Your task to perform on an android device: Open Yahoo.com Image 0: 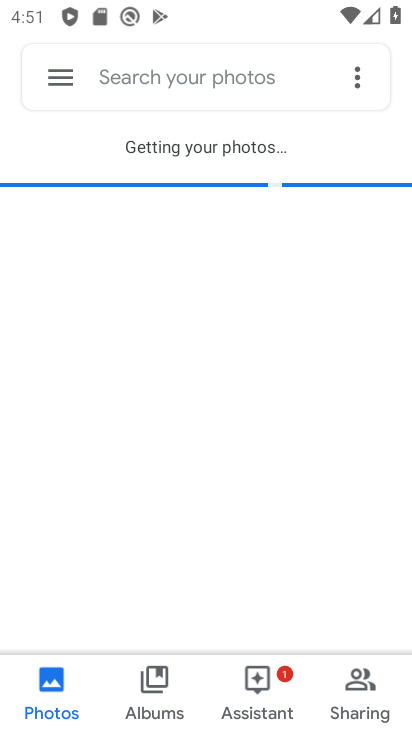
Step 0: press home button
Your task to perform on an android device: Open Yahoo.com Image 1: 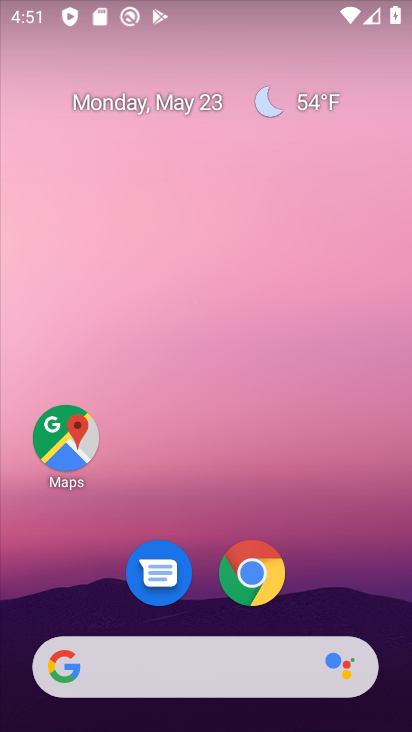
Step 1: drag from (209, 693) to (183, 209)
Your task to perform on an android device: Open Yahoo.com Image 2: 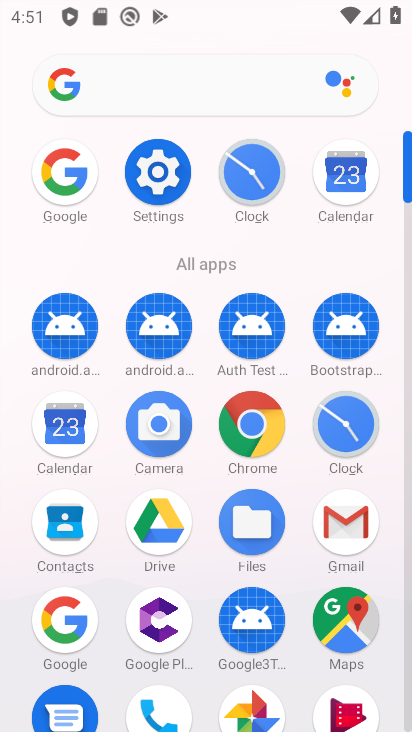
Step 2: click (255, 426)
Your task to perform on an android device: Open Yahoo.com Image 3: 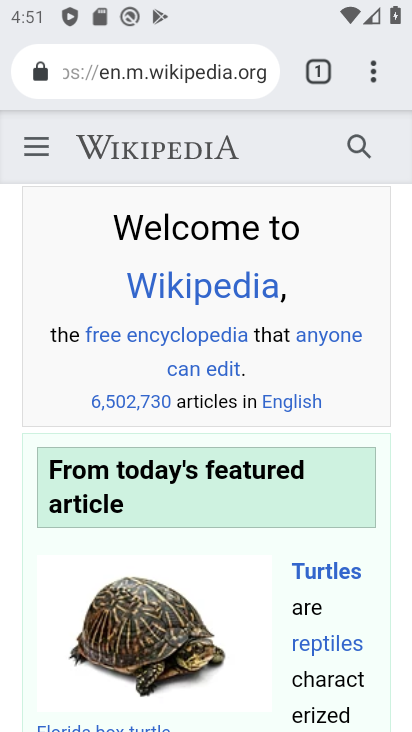
Step 3: click (372, 78)
Your task to perform on an android device: Open Yahoo.com Image 4: 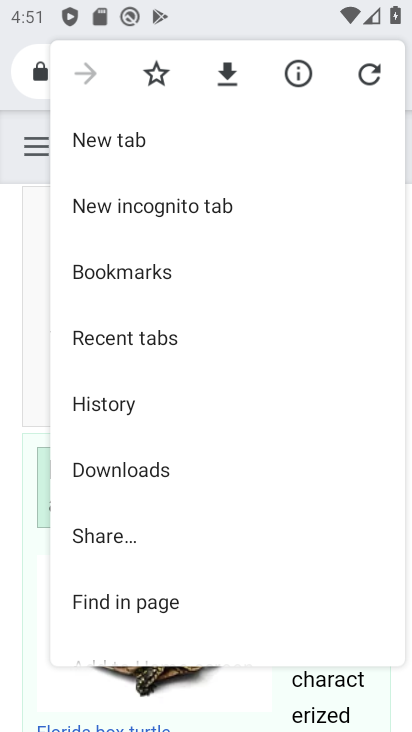
Step 4: click (112, 144)
Your task to perform on an android device: Open Yahoo.com Image 5: 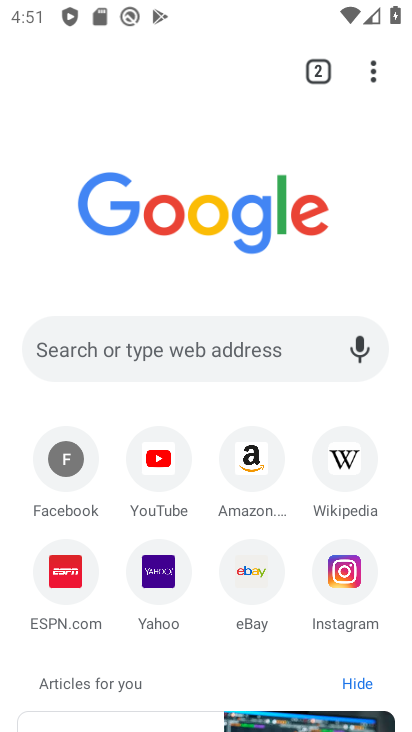
Step 5: click (172, 574)
Your task to perform on an android device: Open Yahoo.com Image 6: 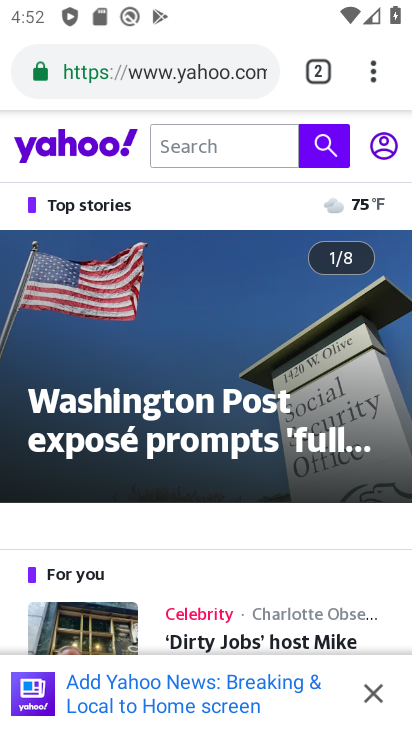
Step 6: task complete